Your task to perform on an android device: snooze an email in the gmail app Image 0: 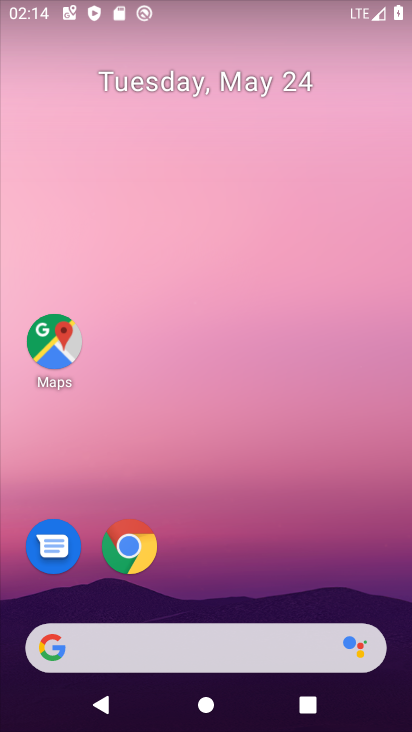
Step 0: click (353, 27)
Your task to perform on an android device: snooze an email in the gmail app Image 1: 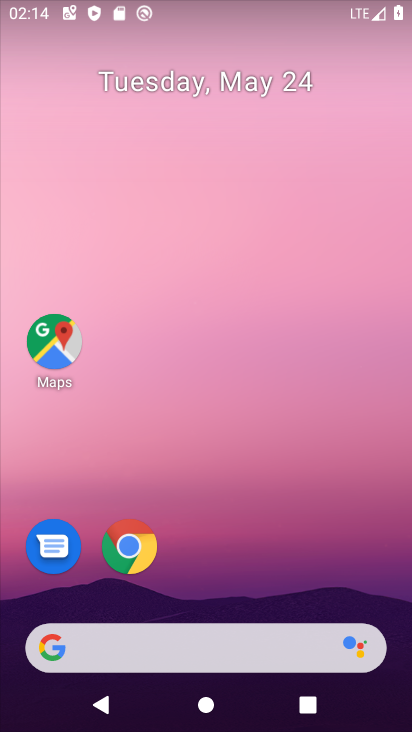
Step 1: drag from (170, 592) to (267, 50)
Your task to perform on an android device: snooze an email in the gmail app Image 2: 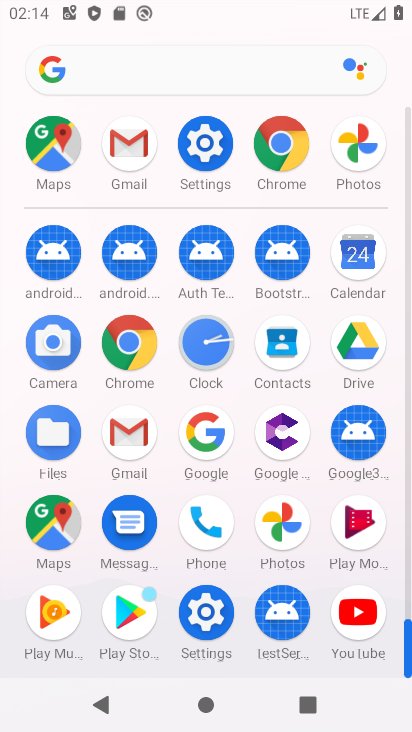
Step 2: click (138, 432)
Your task to perform on an android device: snooze an email in the gmail app Image 3: 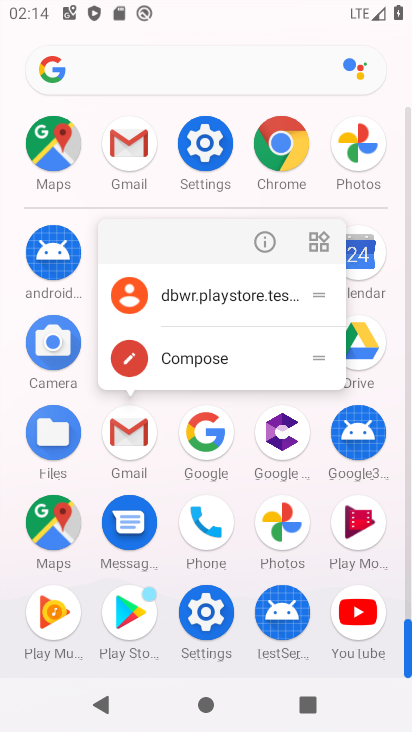
Step 3: click (264, 236)
Your task to perform on an android device: snooze an email in the gmail app Image 4: 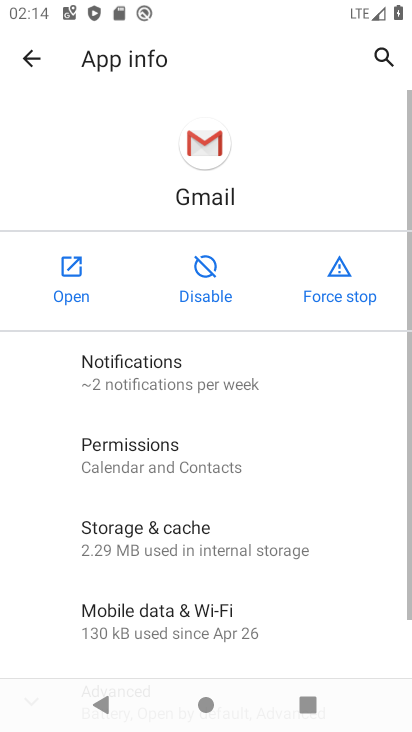
Step 4: click (60, 279)
Your task to perform on an android device: snooze an email in the gmail app Image 5: 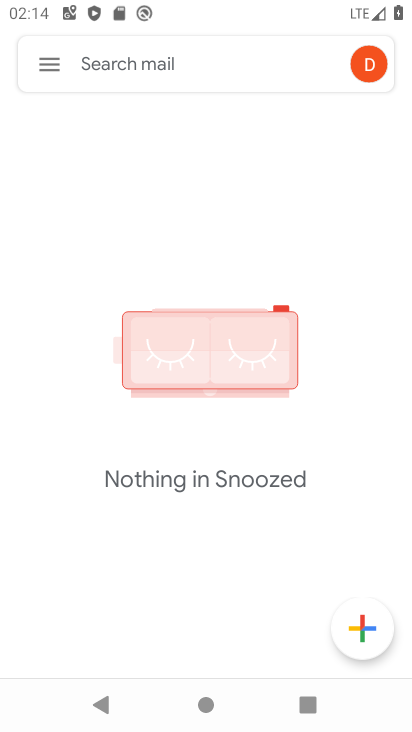
Step 5: click (54, 57)
Your task to perform on an android device: snooze an email in the gmail app Image 6: 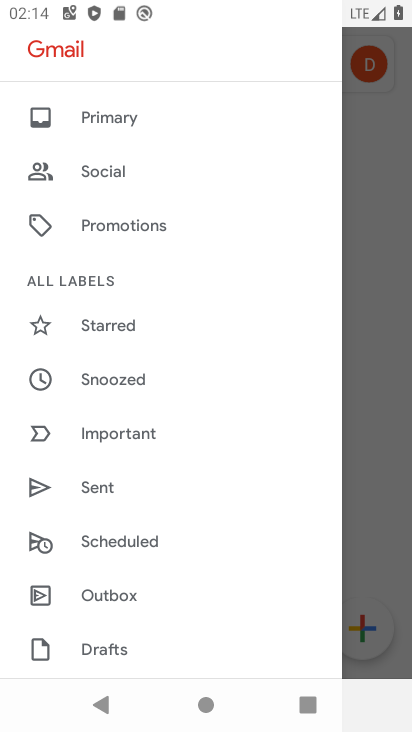
Step 6: click (105, 376)
Your task to perform on an android device: snooze an email in the gmail app Image 7: 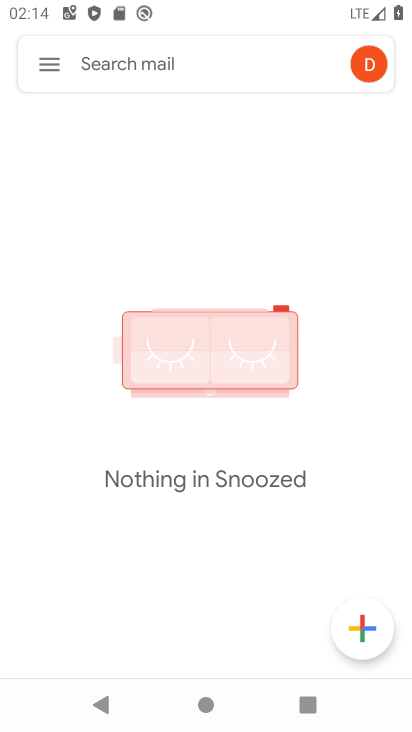
Step 7: task complete